Your task to perform on an android device: choose inbox layout in the gmail app Image 0: 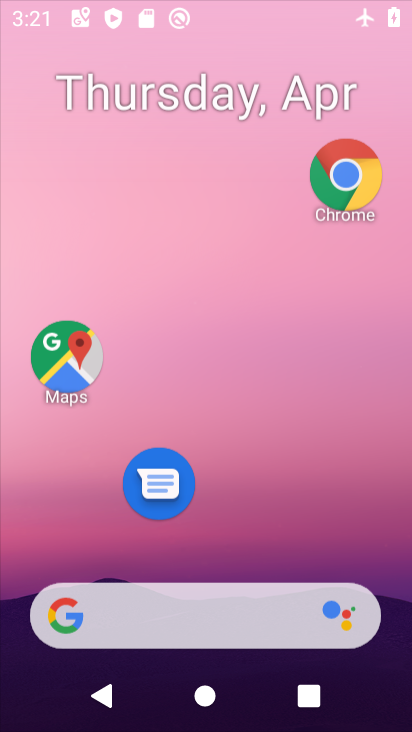
Step 0: click (280, 288)
Your task to perform on an android device: choose inbox layout in the gmail app Image 1: 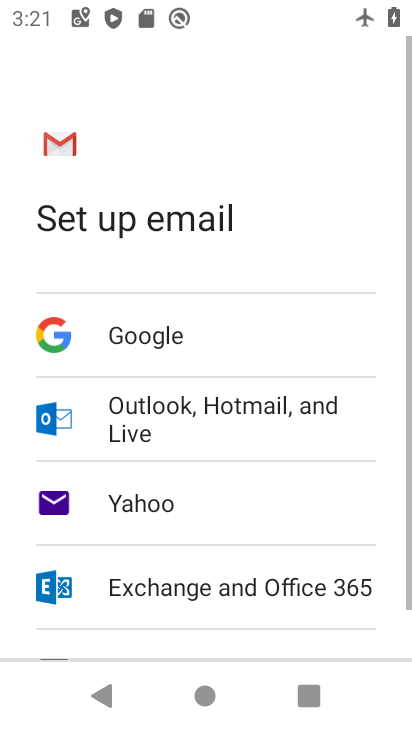
Step 1: press home button
Your task to perform on an android device: choose inbox layout in the gmail app Image 2: 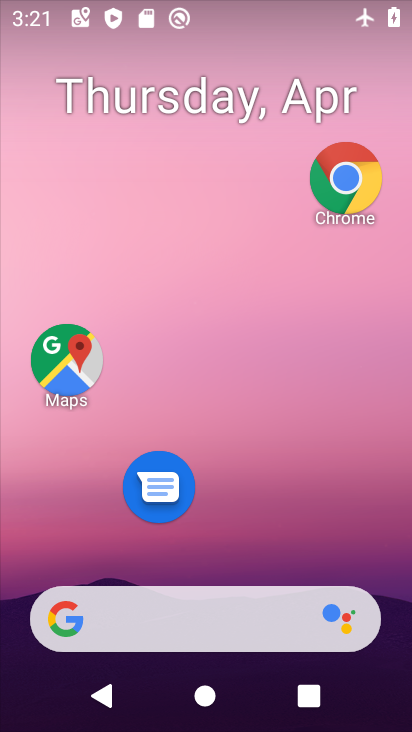
Step 2: drag from (214, 474) to (232, 216)
Your task to perform on an android device: choose inbox layout in the gmail app Image 3: 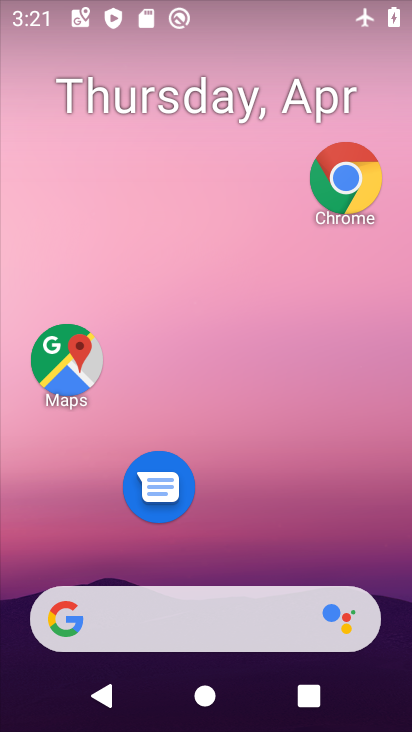
Step 3: drag from (209, 569) to (213, 511)
Your task to perform on an android device: choose inbox layout in the gmail app Image 4: 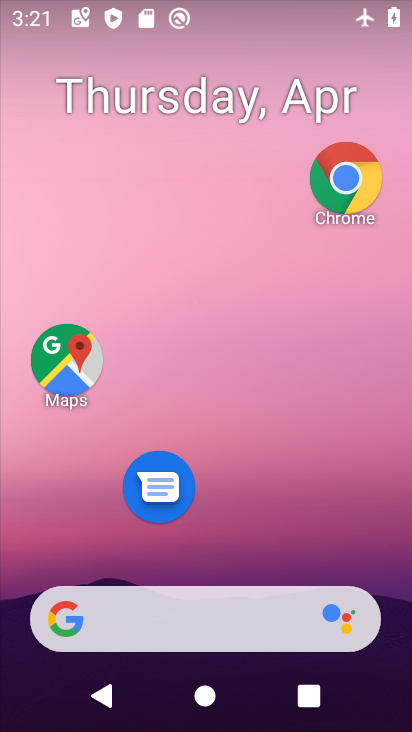
Step 4: drag from (220, 542) to (221, 502)
Your task to perform on an android device: choose inbox layout in the gmail app Image 5: 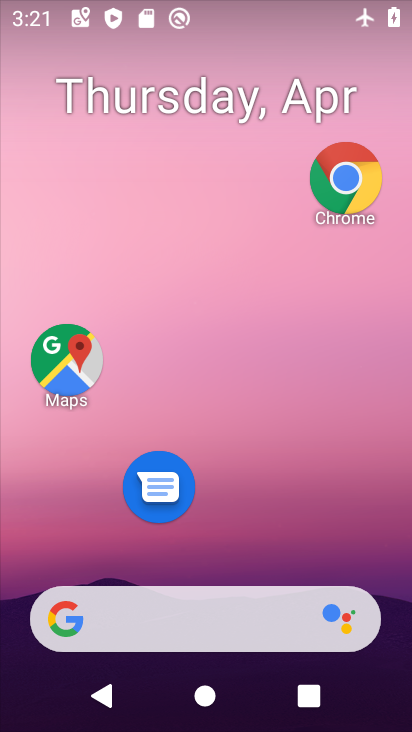
Step 5: drag from (221, 502) to (249, 85)
Your task to perform on an android device: choose inbox layout in the gmail app Image 6: 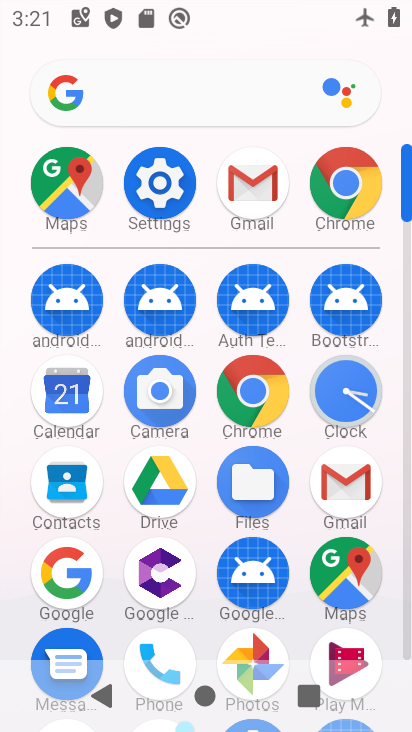
Step 6: click (248, 182)
Your task to perform on an android device: choose inbox layout in the gmail app Image 7: 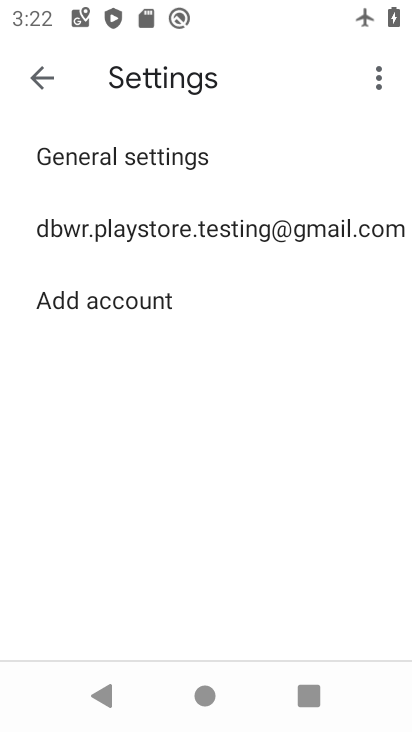
Step 7: task complete